Your task to perform on an android device: Go to battery settings Image 0: 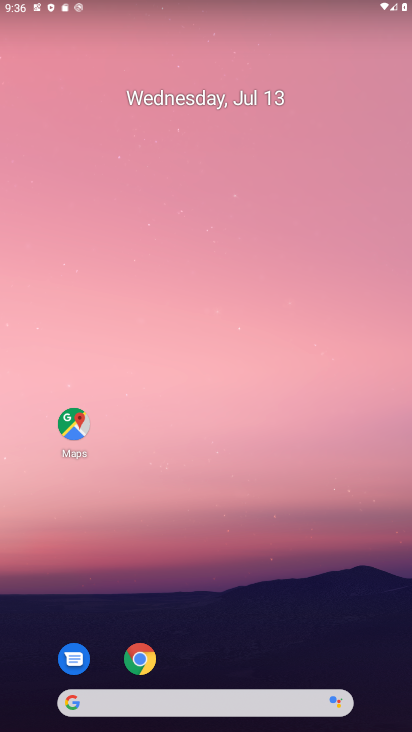
Step 0: drag from (191, 701) to (249, 109)
Your task to perform on an android device: Go to battery settings Image 1: 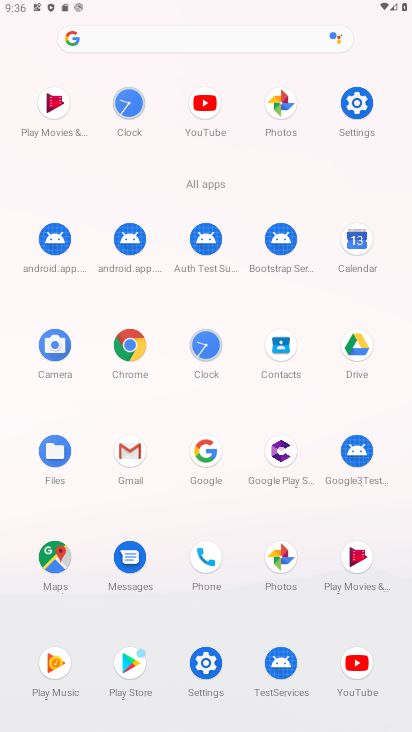
Step 1: click (357, 113)
Your task to perform on an android device: Go to battery settings Image 2: 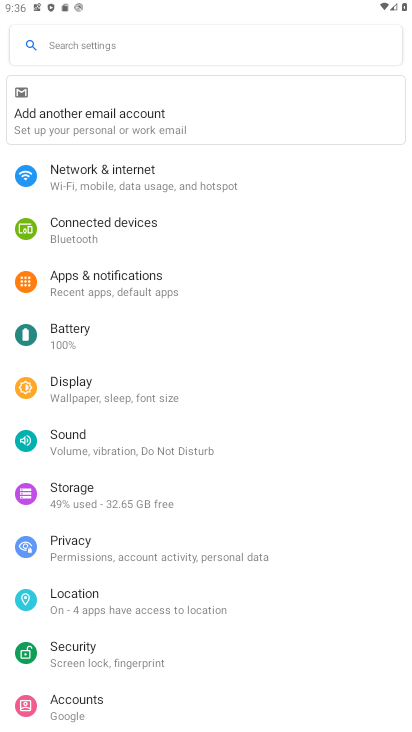
Step 2: click (73, 326)
Your task to perform on an android device: Go to battery settings Image 3: 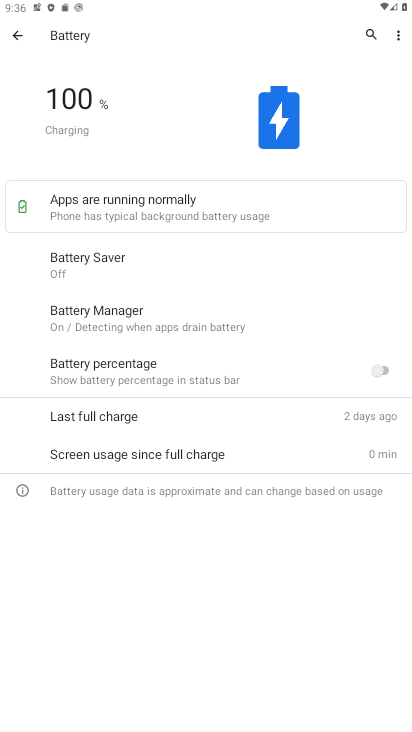
Step 3: task complete